Your task to perform on an android device: toggle pop-ups in chrome Image 0: 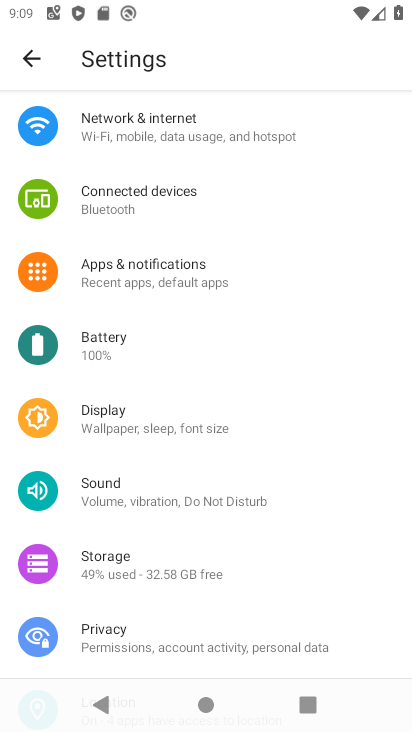
Step 0: press home button
Your task to perform on an android device: toggle pop-ups in chrome Image 1: 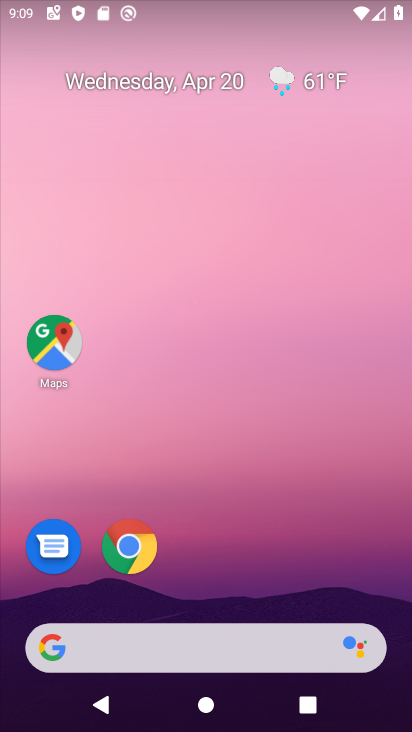
Step 1: click (128, 544)
Your task to perform on an android device: toggle pop-ups in chrome Image 2: 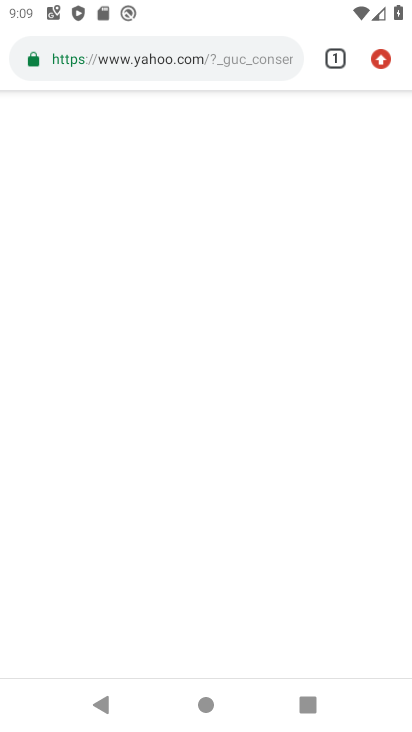
Step 2: click (384, 64)
Your task to perform on an android device: toggle pop-ups in chrome Image 3: 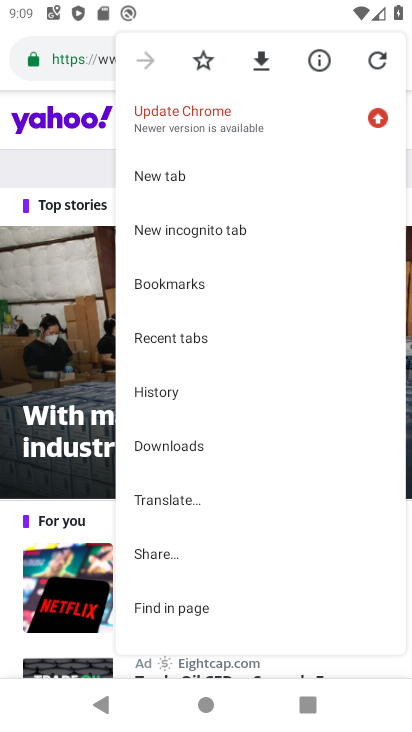
Step 3: drag from (193, 621) to (190, 170)
Your task to perform on an android device: toggle pop-ups in chrome Image 4: 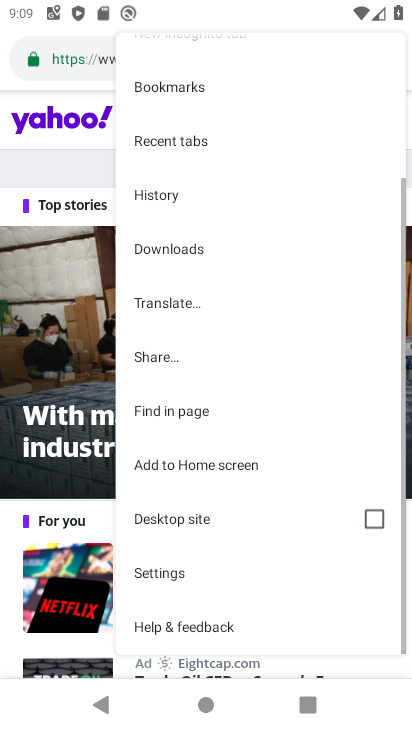
Step 4: click (160, 574)
Your task to perform on an android device: toggle pop-ups in chrome Image 5: 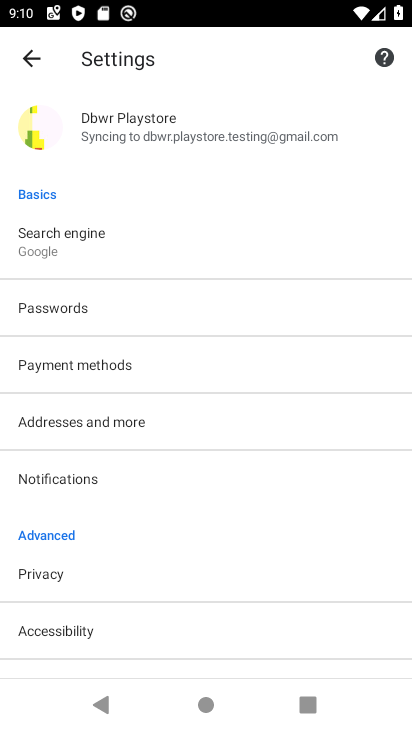
Step 5: drag from (137, 641) to (172, 237)
Your task to perform on an android device: toggle pop-ups in chrome Image 6: 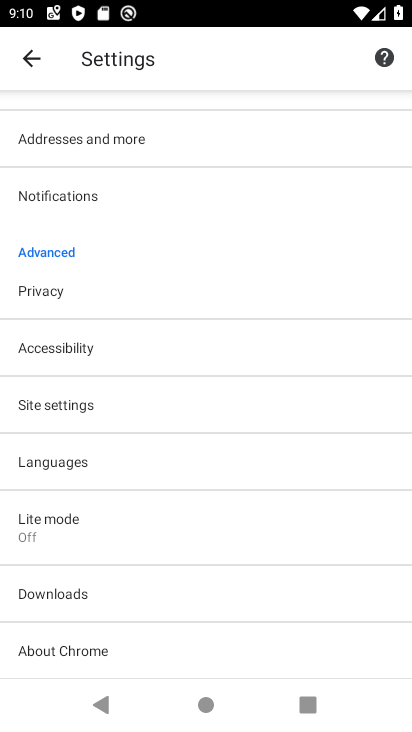
Step 6: click (75, 401)
Your task to perform on an android device: toggle pop-ups in chrome Image 7: 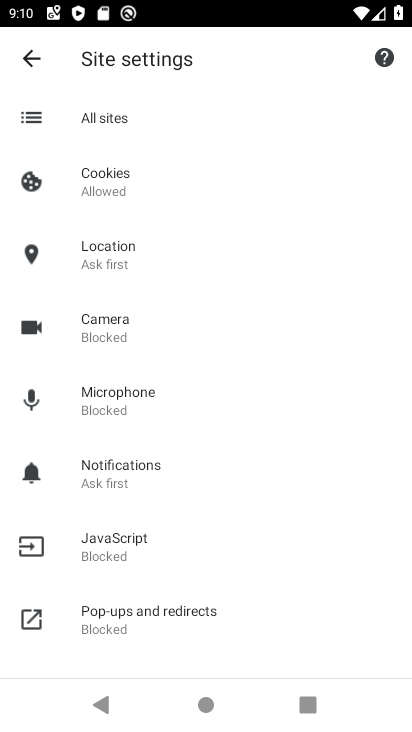
Step 7: click (123, 609)
Your task to perform on an android device: toggle pop-ups in chrome Image 8: 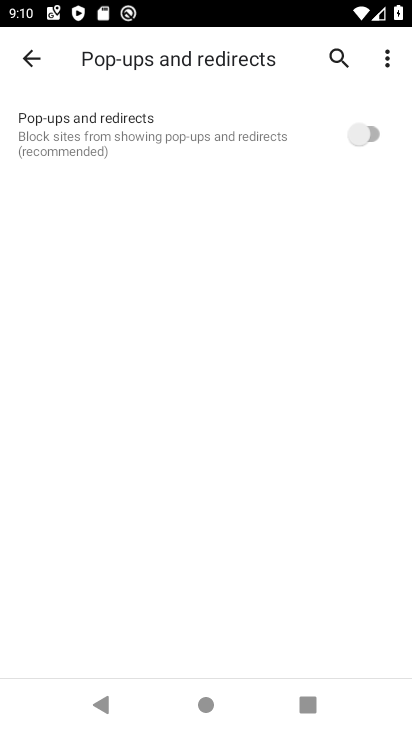
Step 8: click (371, 130)
Your task to perform on an android device: toggle pop-ups in chrome Image 9: 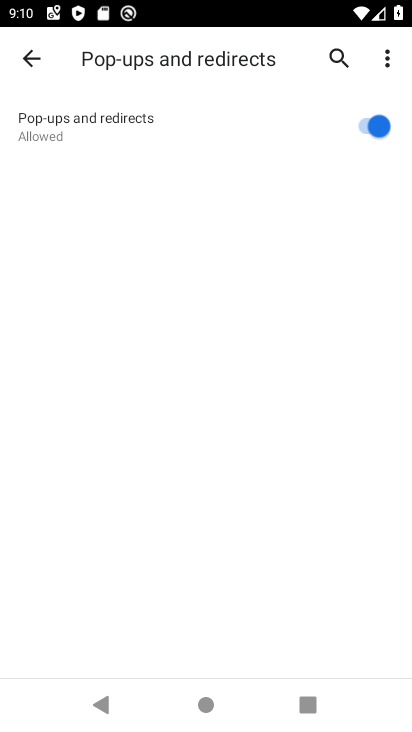
Step 9: task complete